Your task to perform on an android device: Open Chrome and go to the settings page Image 0: 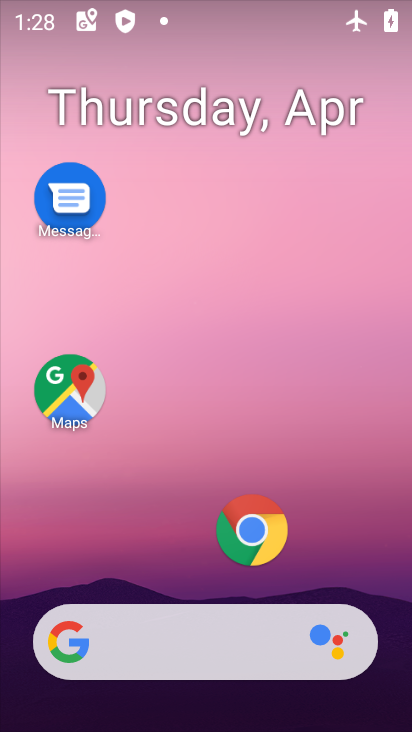
Step 0: click (241, 523)
Your task to perform on an android device: Open Chrome and go to the settings page Image 1: 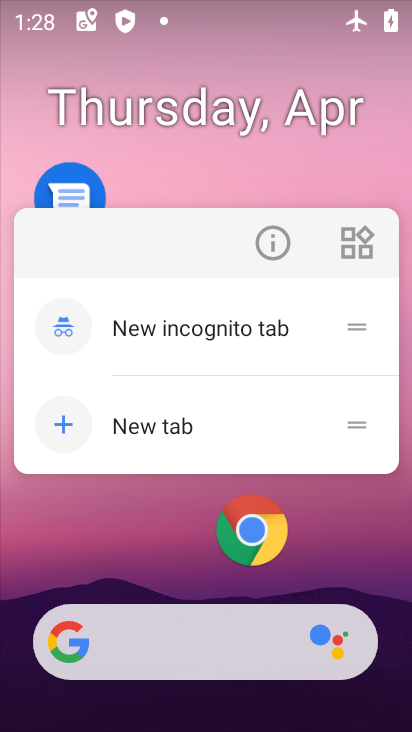
Step 1: click (255, 523)
Your task to perform on an android device: Open Chrome and go to the settings page Image 2: 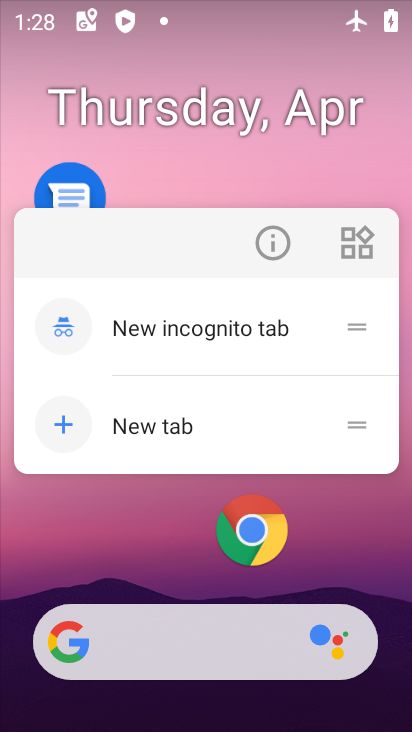
Step 2: click (257, 552)
Your task to perform on an android device: Open Chrome and go to the settings page Image 3: 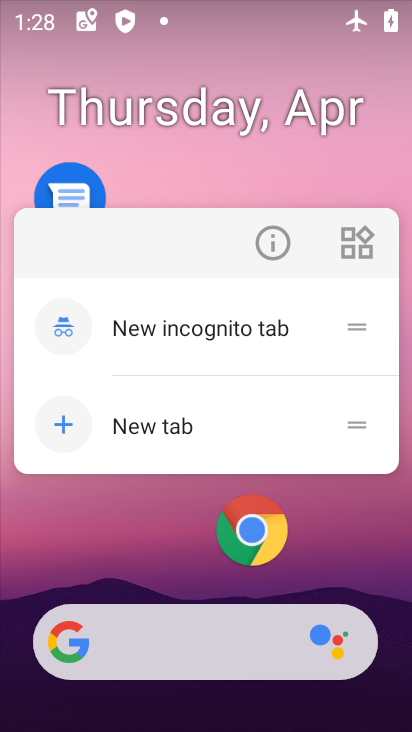
Step 3: click (257, 552)
Your task to perform on an android device: Open Chrome and go to the settings page Image 4: 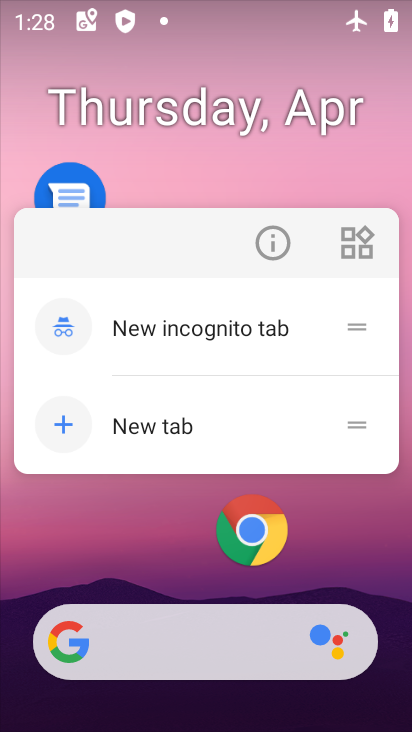
Step 4: click (257, 552)
Your task to perform on an android device: Open Chrome and go to the settings page Image 5: 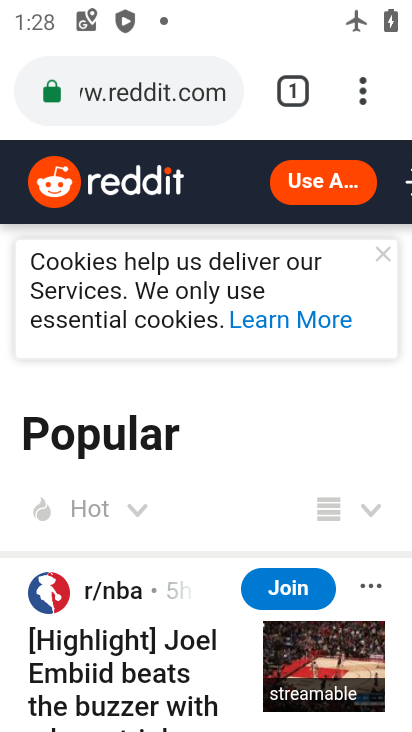
Step 5: click (371, 93)
Your task to perform on an android device: Open Chrome and go to the settings page Image 6: 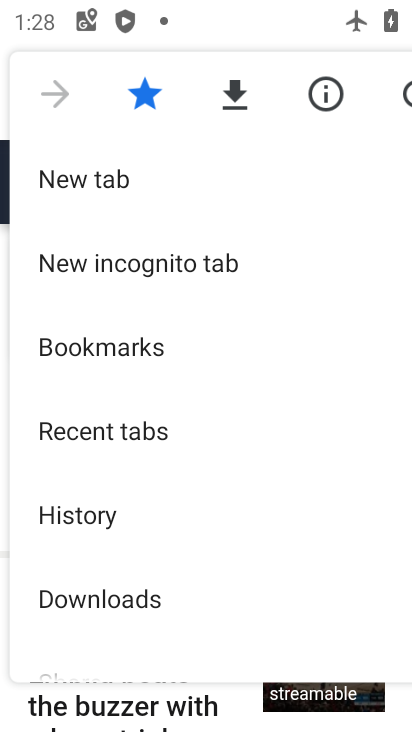
Step 6: drag from (179, 532) to (168, 232)
Your task to perform on an android device: Open Chrome and go to the settings page Image 7: 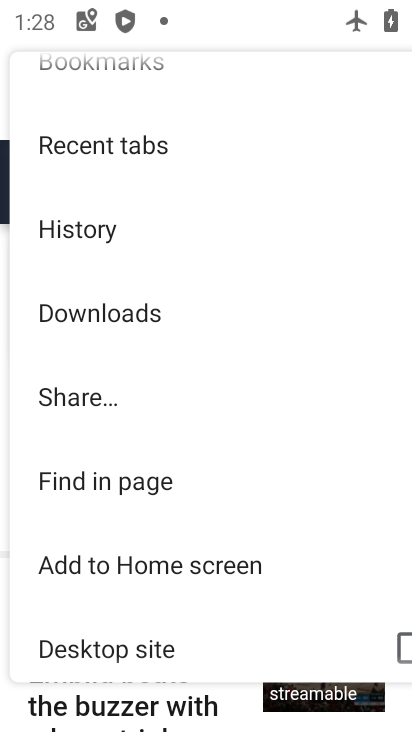
Step 7: drag from (132, 378) to (131, 278)
Your task to perform on an android device: Open Chrome and go to the settings page Image 8: 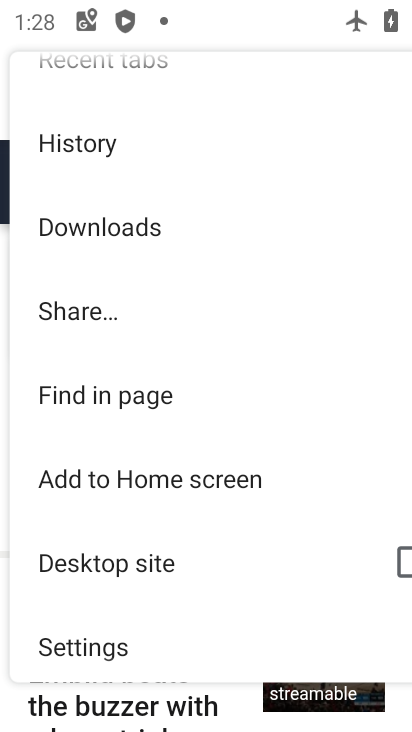
Step 8: click (128, 640)
Your task to perform on an android device: Open Chrome and go to the settings page Image 9: 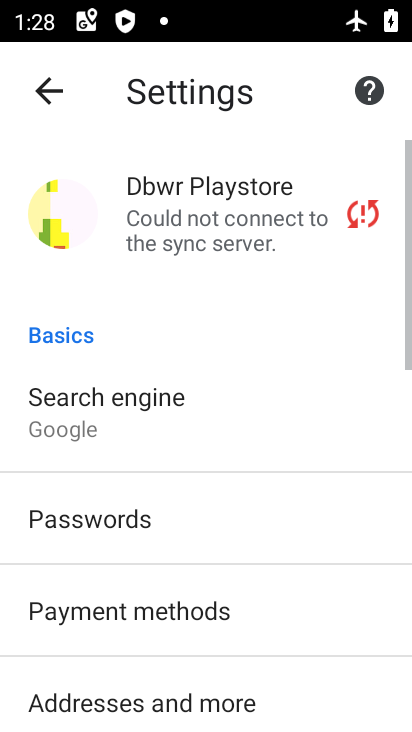
Step 9: task complete